Your task to perform on an android device: Open Chrome and go to the settings page Image 0: 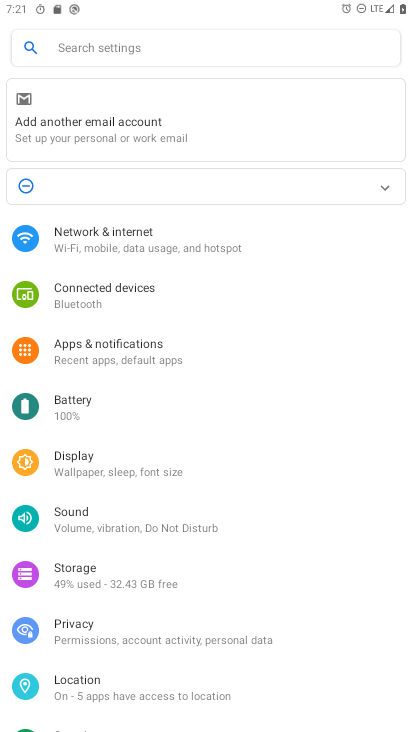
Step 0: press home button
Your task to perform on an android device: Open Chrome and go to the settings page Image 1: 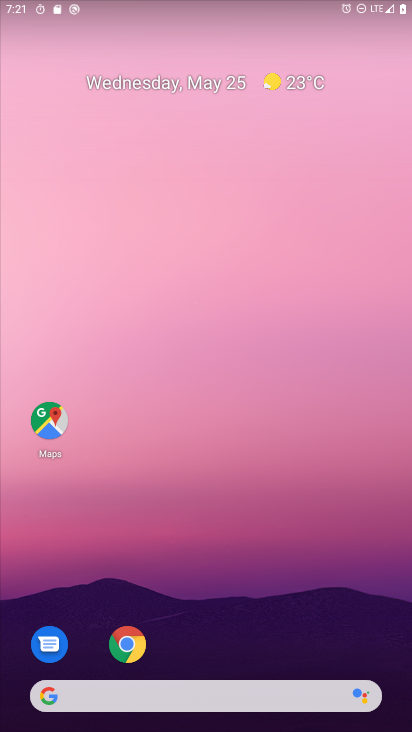
Step 1: drag from (320, 613) to (247, 105)
Your task to perform on an android device: Open Chrome and go to the settings page Image 2: 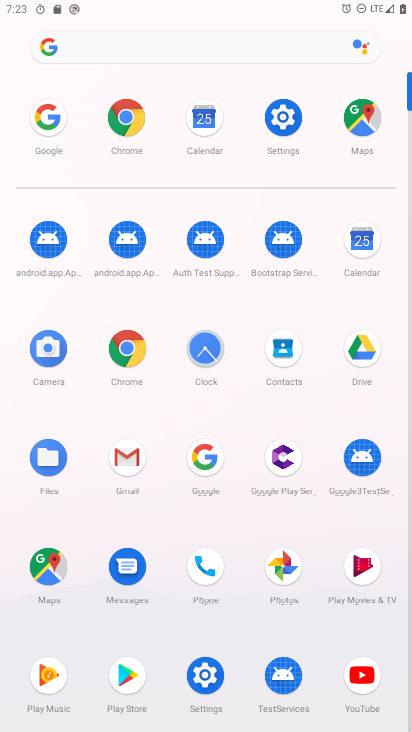
Step 2: click (126, 347)
Your task to perform on an android device: Open Chrome and go to the settings page Image 3: 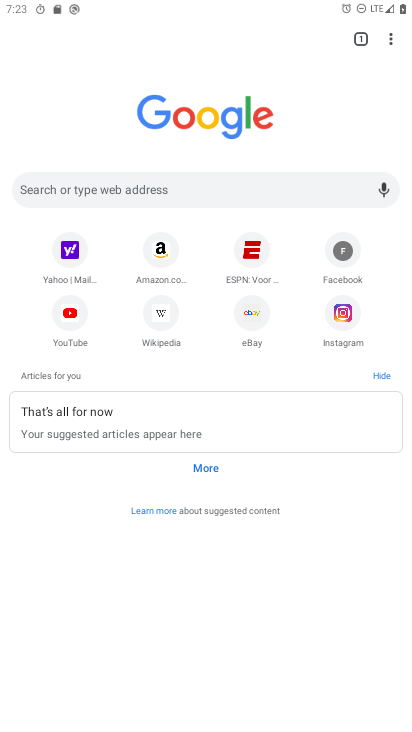
Step 3: click (397, 33)
Your task to perform on an android device: Open Chrome and go to the settings page Image 4: 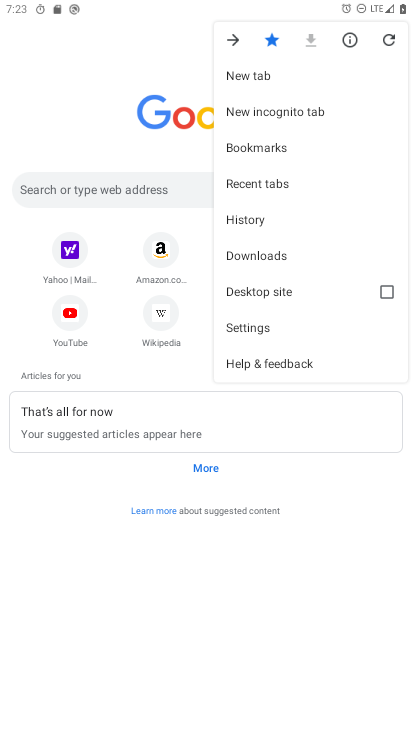
Step 4: click (268, 333)
Your task to perform on an android device: Open Chrome and go to the settings page Image 5: 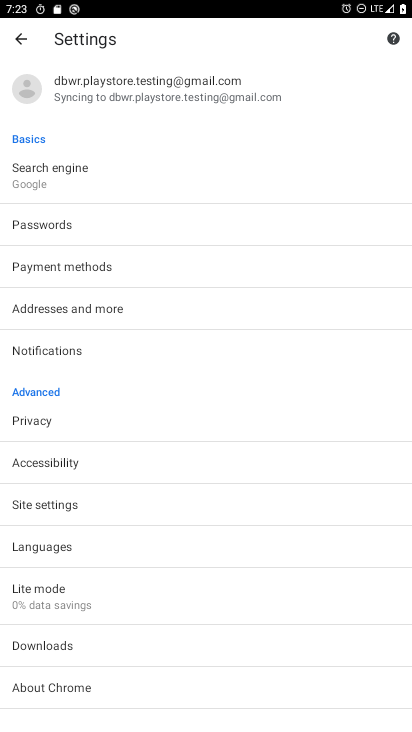
Step 5: task complete